Your task to perform on an android device: Open Google Chrome and click the shortcut for Amazon.com Image 0: 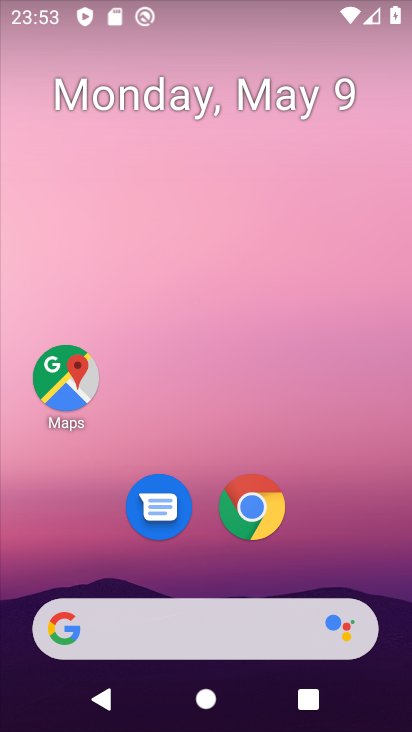
Step 0: click (267, 509)
Your task to perform on an android device: Open Google Chrome and click the shortcut for Amazon.com Image 1: 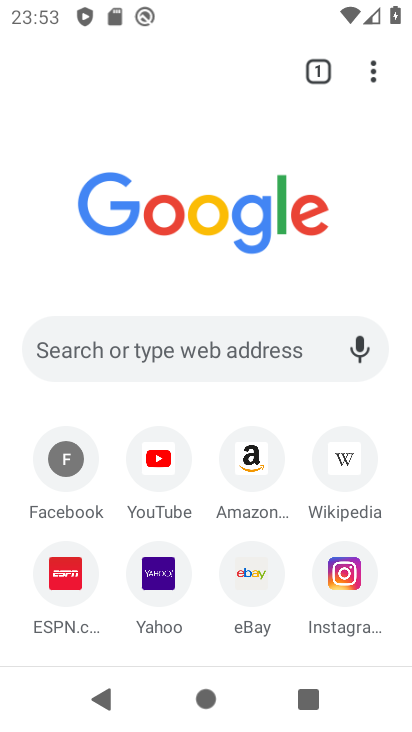
Step 1: click (258, 458)
Your task to perform on an android device: Open Google Chrome and click the shortcut for Amazon.com Image 2: 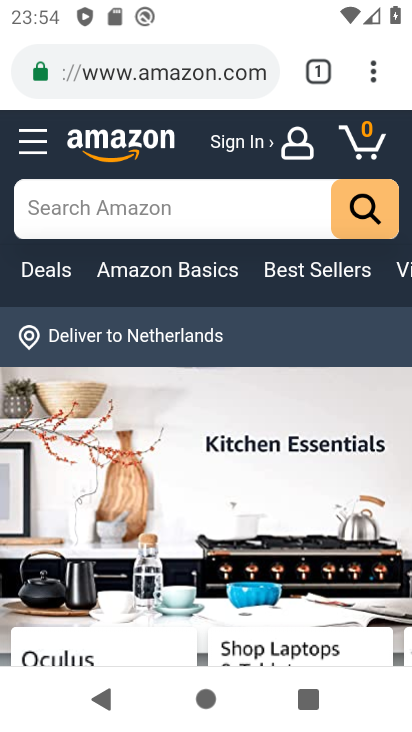
Step 2: task complete